Your task to perform on an android device: Open Youtube and go to the subscriptions tab Image 0: 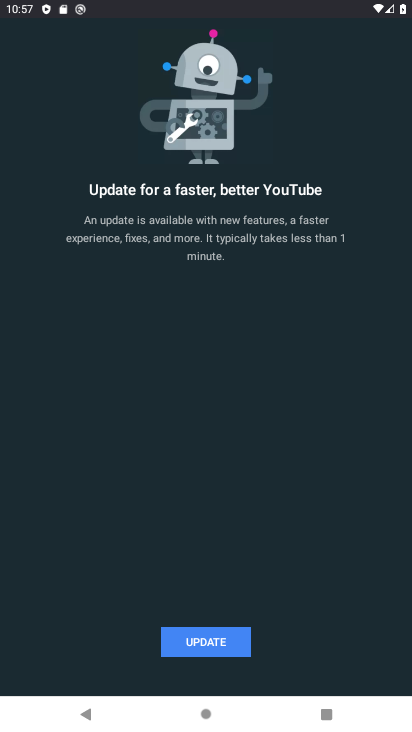
Step 0: press home button
Your task to perform on an android device: Open Youtube and go to the subscriptions tab Image 1: 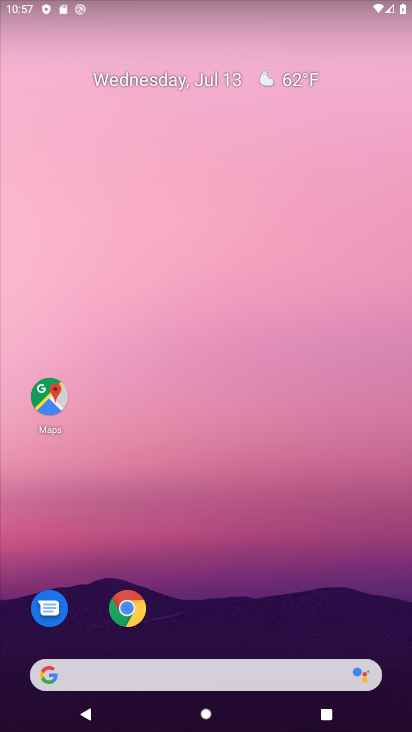
Step 1: drag from (238, 717) to (238, 324)
Your task to perform on an android device: Open Youtube and go to the subscriptions tab Image 2: 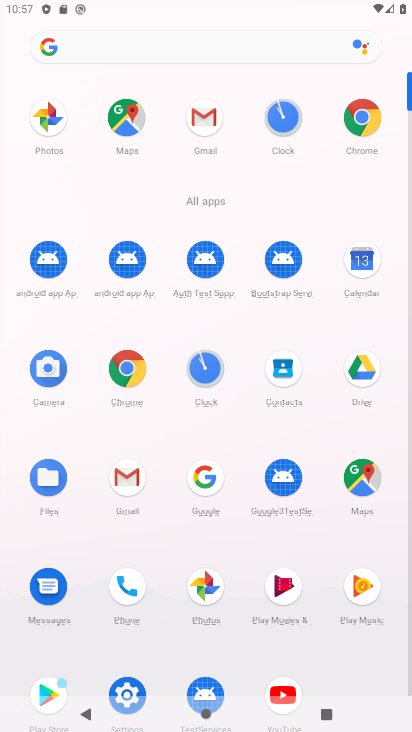
Step 2: click (287, 688)
Your task to perform on an android device: Open Youtube and go to the subscriptions tab Image 3: 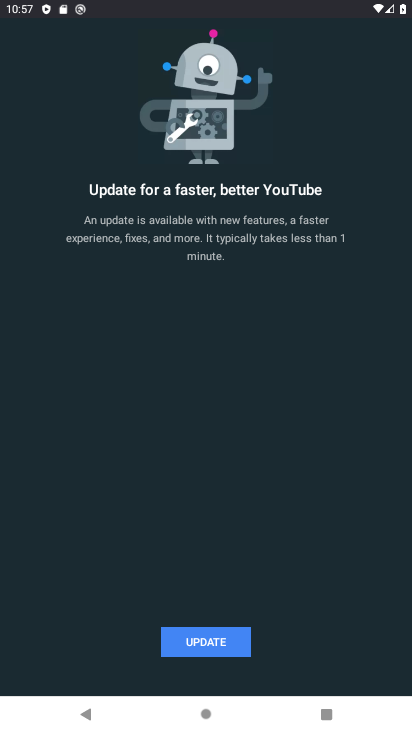
Step 3: task complete